Your task to perform on an android device: toggle notification dots Image 0: 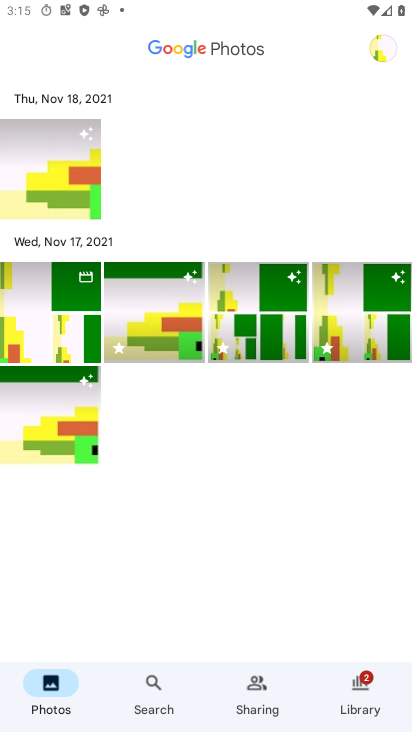
Step 0: press home button
Your task to perform on an android device: toggle notification dots Image 1: 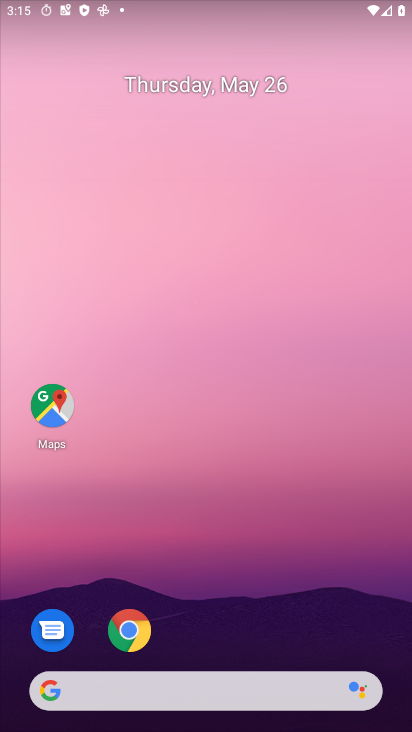
Step 1: drag from (251, 600) to (284, 214)
Your task to perform on an android device: toggle notification dots Image 2: 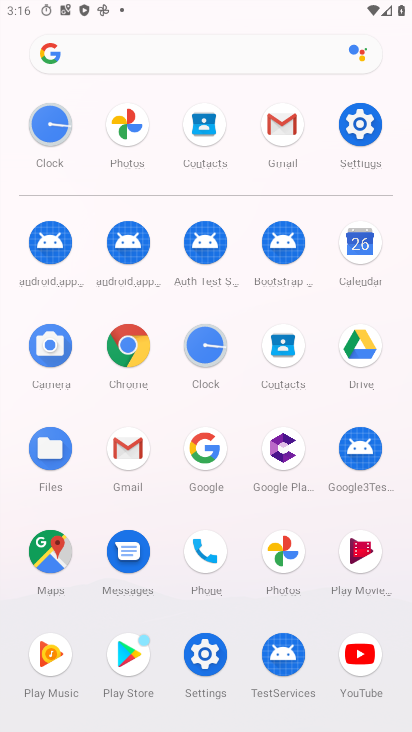
Step 2: click (353, 126)
Your task to perform on an android device: toggle notification dots Image 3: 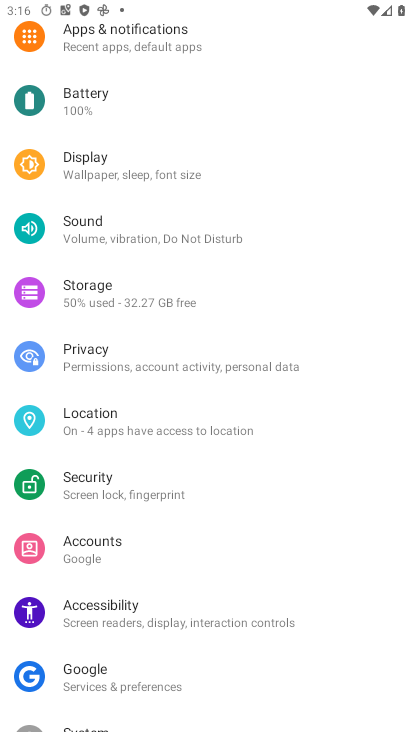
Step 3: click (159, 41)
Your task to perform on an android device: toggle notification dots Image 4: 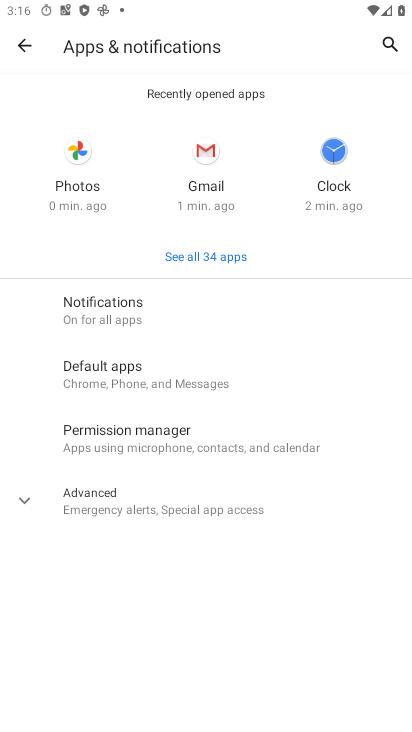
Step 4: click (90, 320)
Your task to perform on an android device: toggle notification dots Image 5: 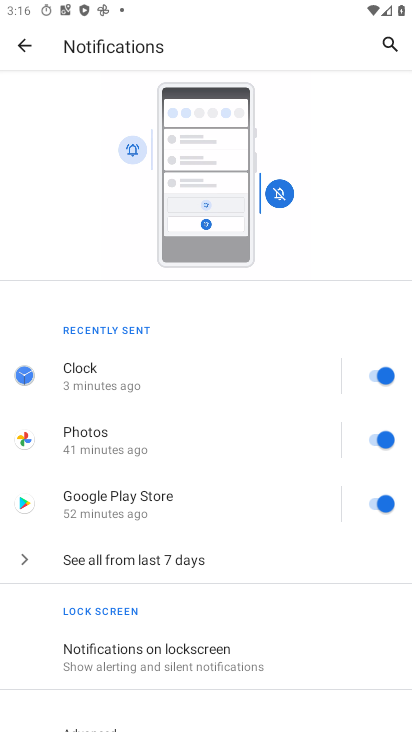
Step 5: drag from (201, 652) to (290, 237)
Your task to perform on an android device: toggle notification dots Image 6: 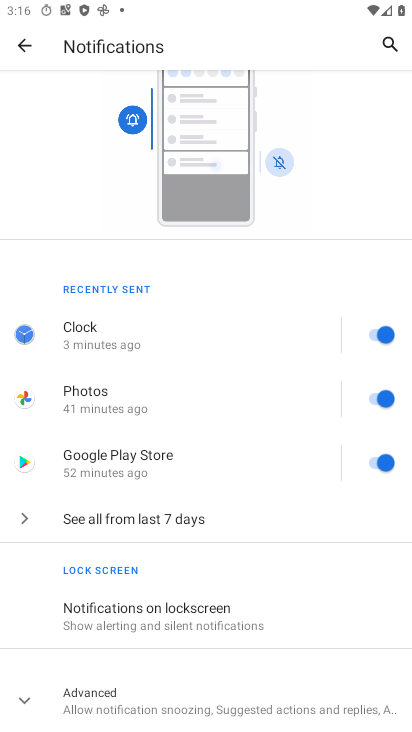
Step 6: click (233, 595)
Your task to perform on an android device: toggle notification dots Image 7: 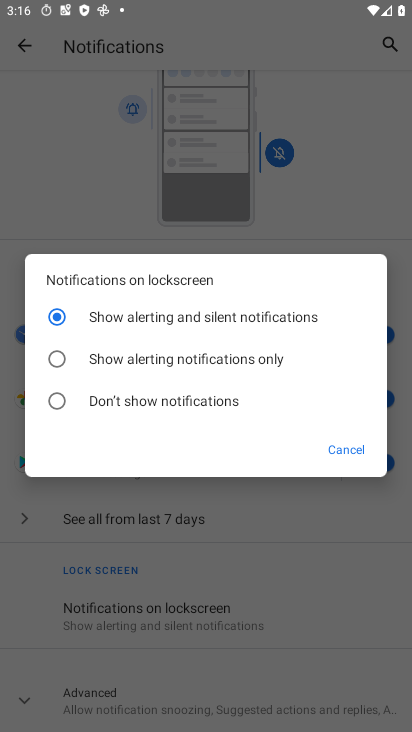
Step 7: click (362, 440)
Your task to perform on an android device: toggle notification dots Image 8: 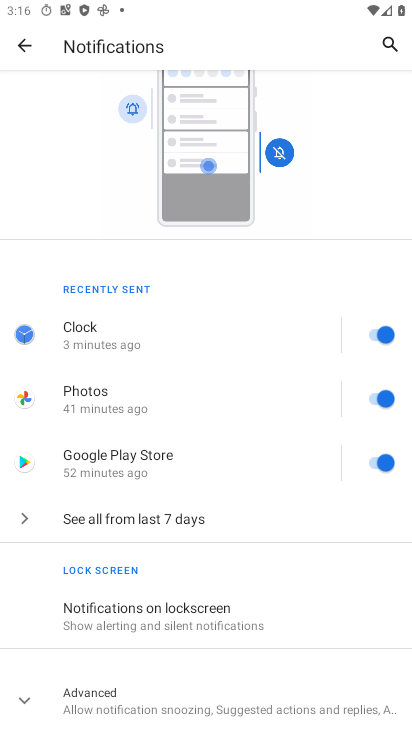
Step 8: click (111, 706)
Your task to perform on an android device: toggle notification dots Image 9: 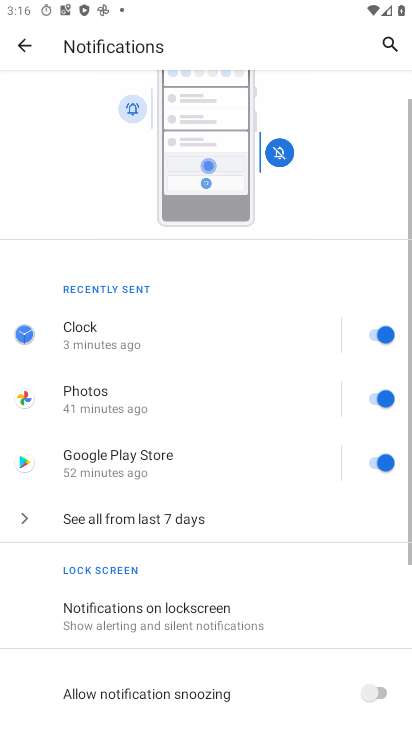
Step 9: drag from (112, 705) to (138, 592)
Your task to perform on an android device: toggle notification dots Image 10: 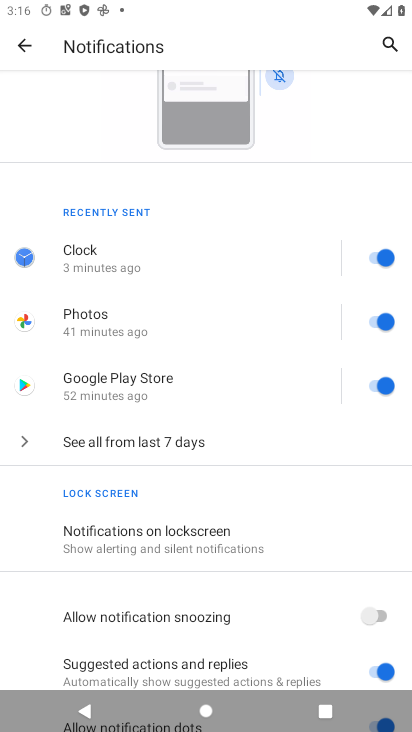
Step 10: drag from (182, 649) to (219, 496)
Your task to perform on an android device: toggle notification dots Image 11: 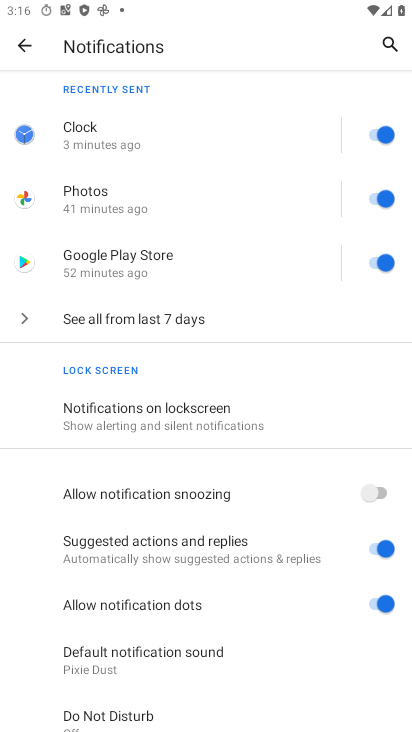
Step 11: click (380, 605)
Your task to perform on an android device: toggle notification dots Image 12: 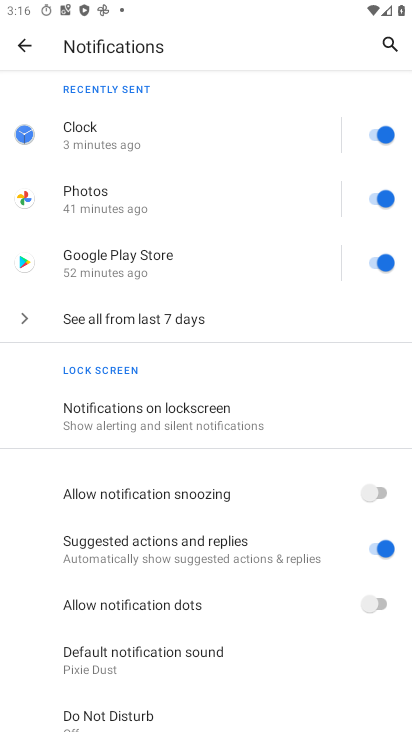
Step 12: task complete